Your task to perform on an android device: Do I have any events this weekend? Image 0: 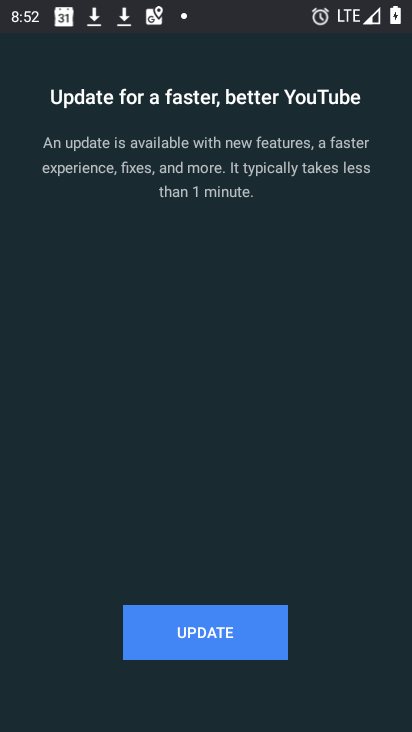
Step 0: press home button
Your task to perform on an android device: Do I have any events this weekend? Image 1: 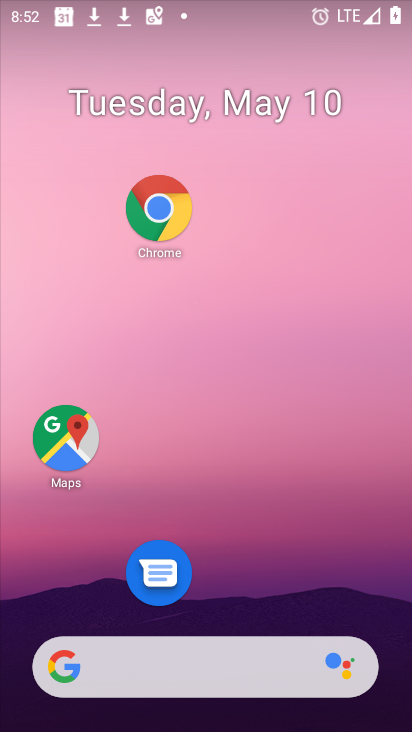
Step 1: drag from (280, 670) to (328, 158)
Your task to perform on an android device: Do I have any events this weekend? Image 2: 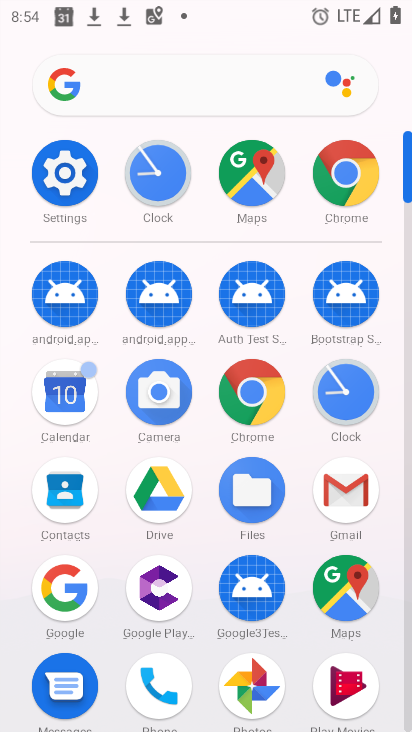
Step 2: click (80, 404)
Your task to perform on an android device: Do I have any events this weekend? Image 3: 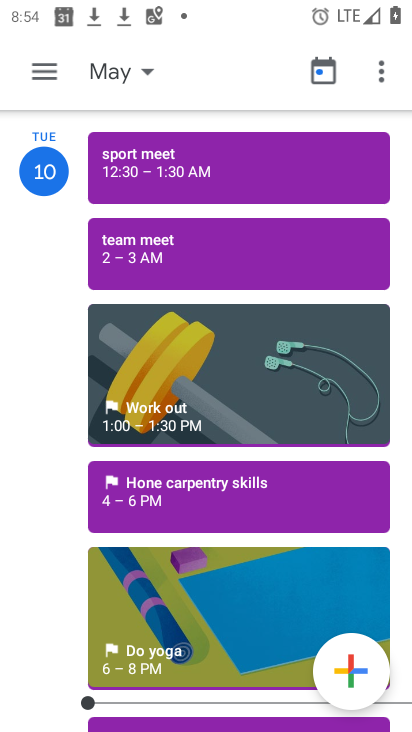
Step 3: click (43, 78)
Your task to perform on an android device: Do I have any events this weekend? Image 4: 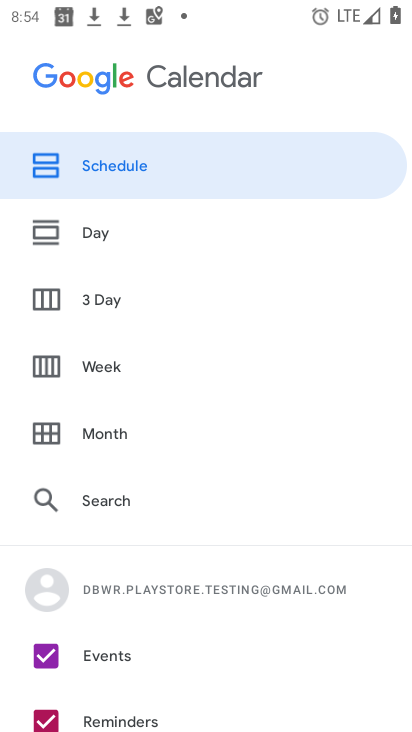
Step 4: click (91, 357)
Your task to perform on an android device: Do I have any events this weekend? Image 5: 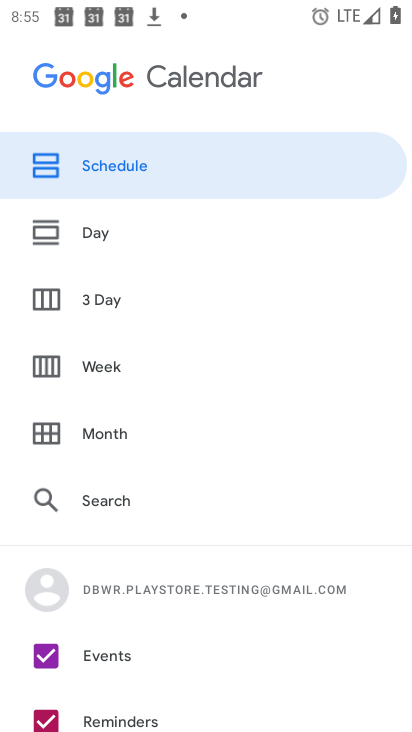
Step 5: click (110, 365)
Your task to perform on an android device: Do I have any events this weekend? Image 6: 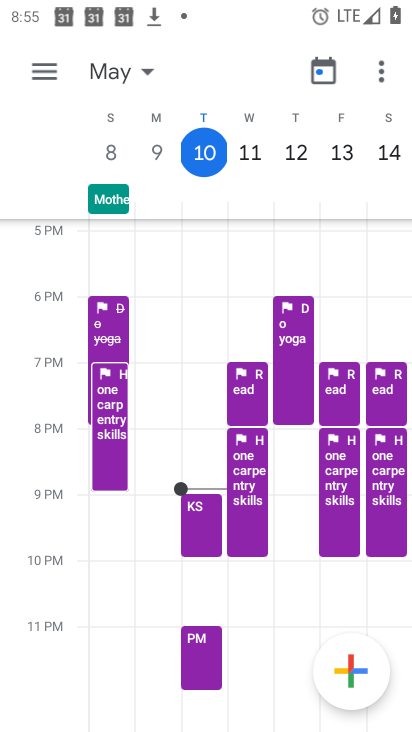
Step 6: task complete